Your task to perform on an android device: Search for a new foundation (skincare) product Image 0: 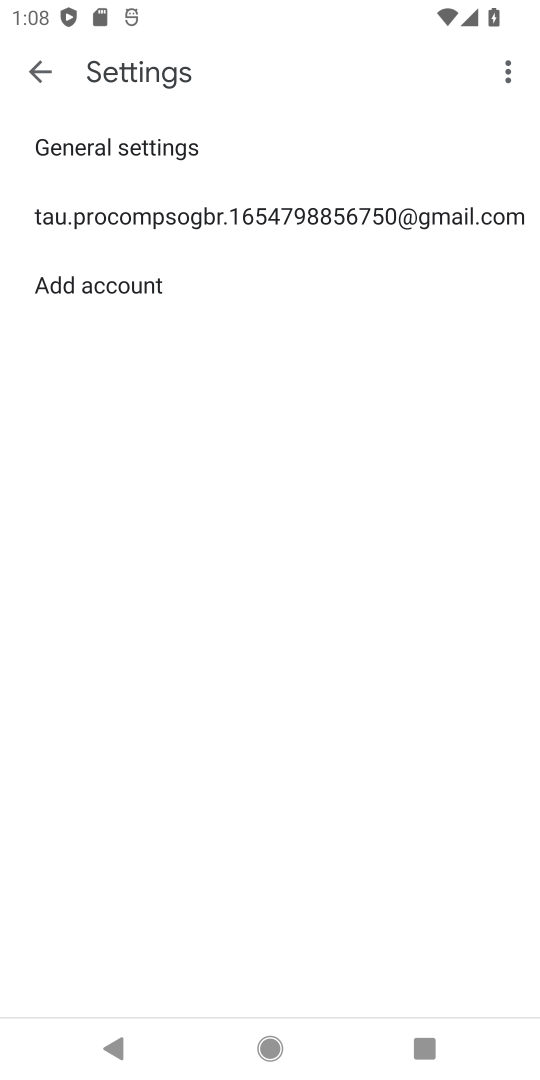
Step 0: press home button
Your task to perform on an android device: Search for a new foundation (skincare) product Image 1: 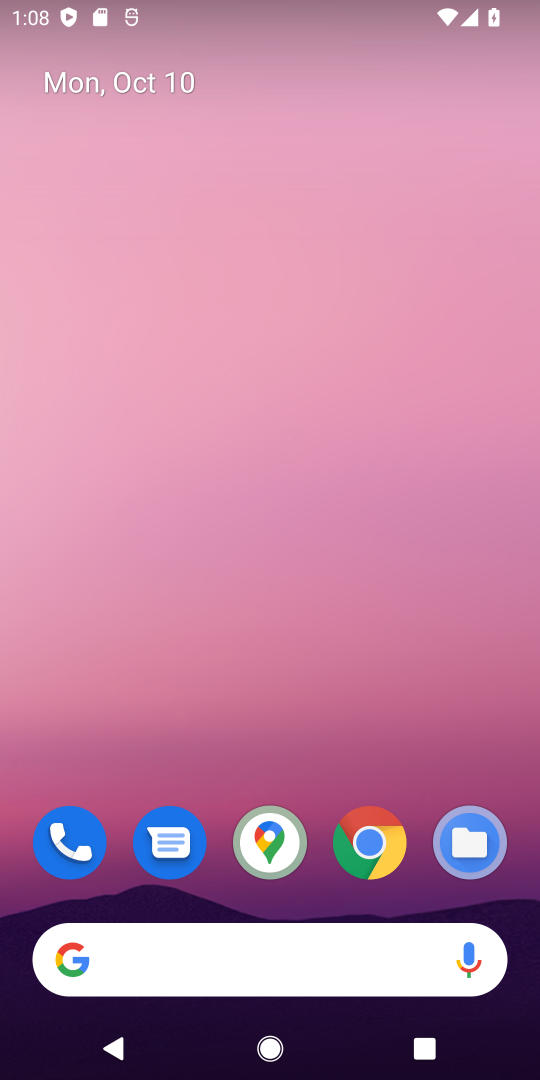
Step 1: click (366, 844)
Your task to perform on an android device: Search for a new foundation (skincare) product Image 2: 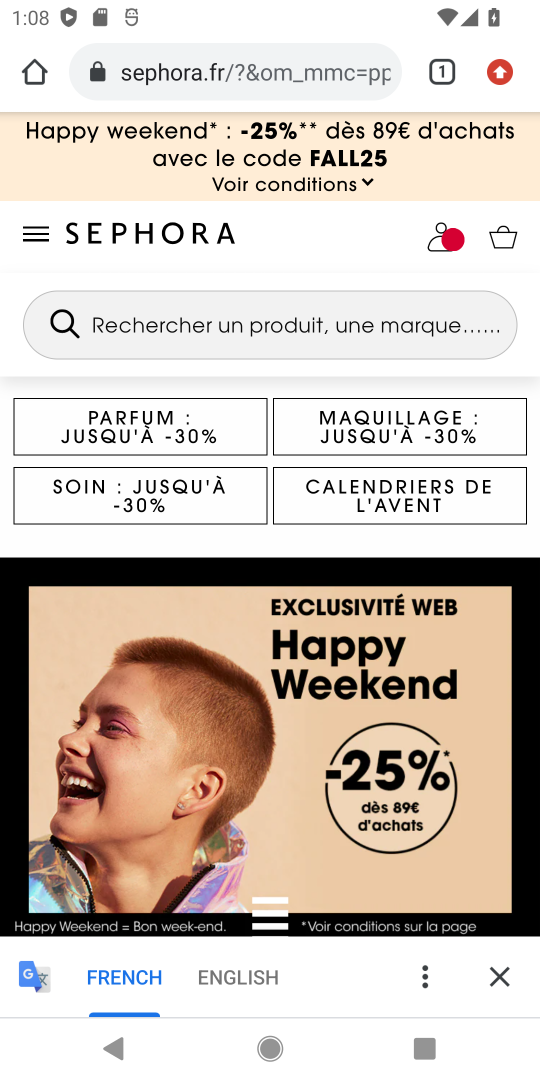
Step 2: click (183, 63)
Your task to perform on an android device: Search for a new foundation (skincare) product Image 3: 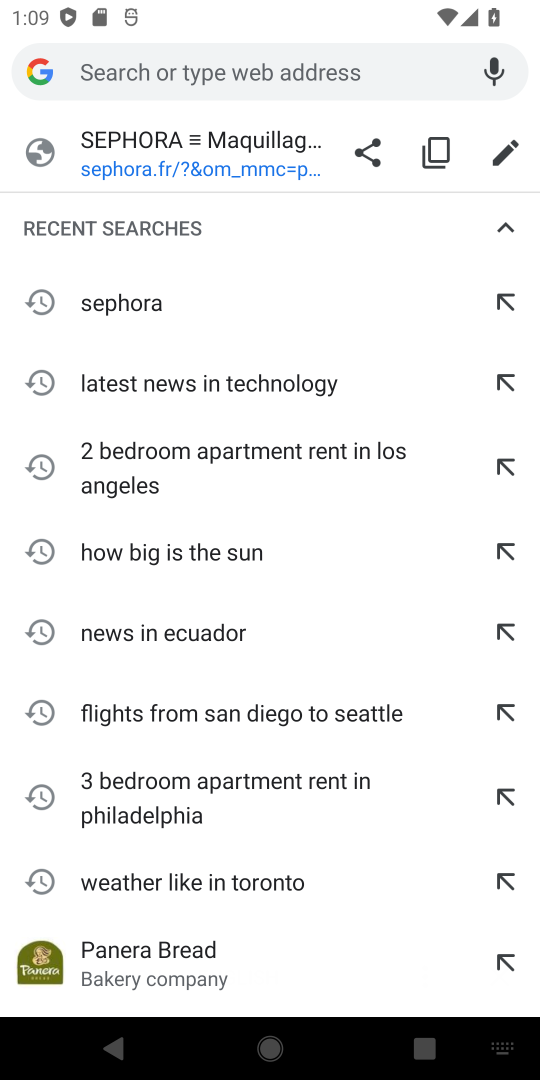
Step 3: type "new foundation skincare product"
Your task to perform on an android device: Search for a new foundation (skincare) product Image 4: 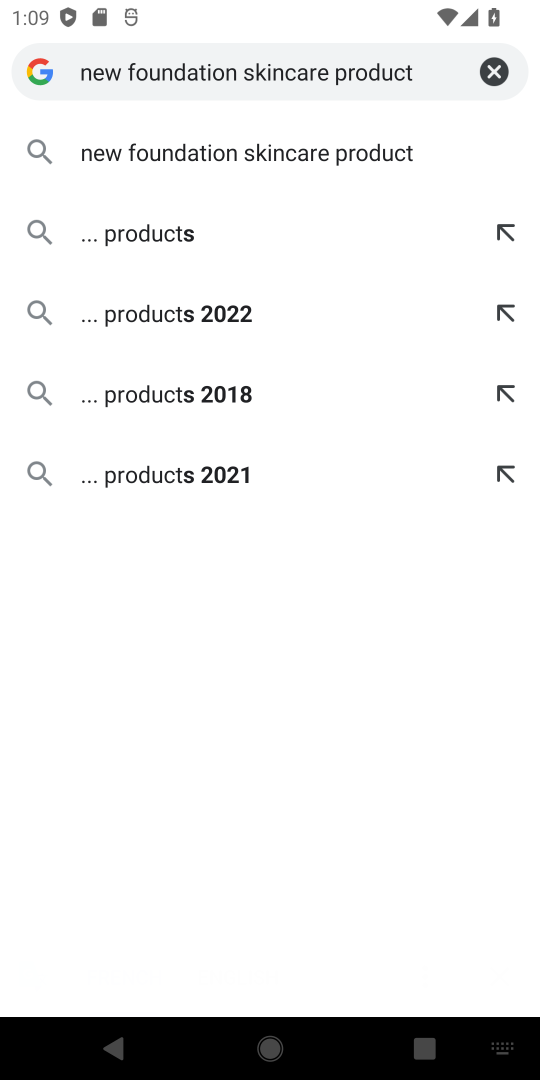
Step 4: press enter
Your task to perform on an android device: Search for a new foundation (skincare) product Image 5: 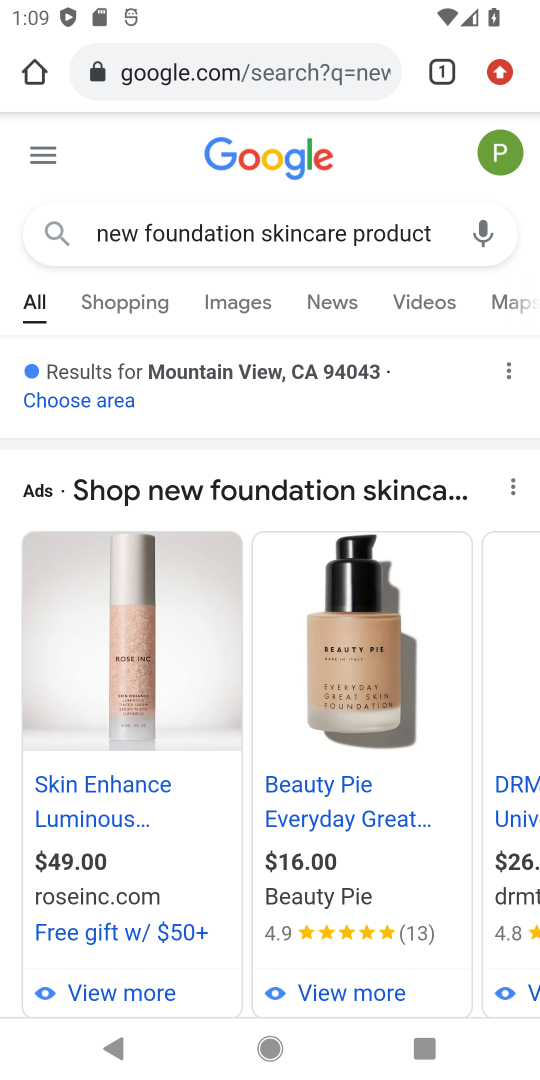
Step 5: drag from (320, 772) to (310, 335)
Your task to perform on an android device: Search for a new foundation (skincare) product Image 6: 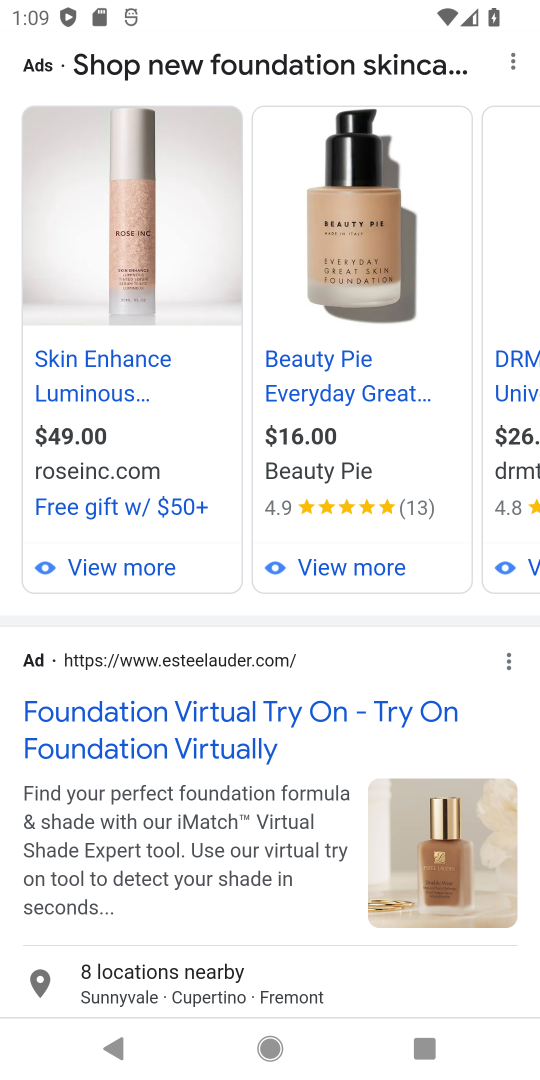
Step 6: drag from (216, 892) to (207, 500)
Your task to perform on an android device: Search for a new foundation (skincare) product Image 7: 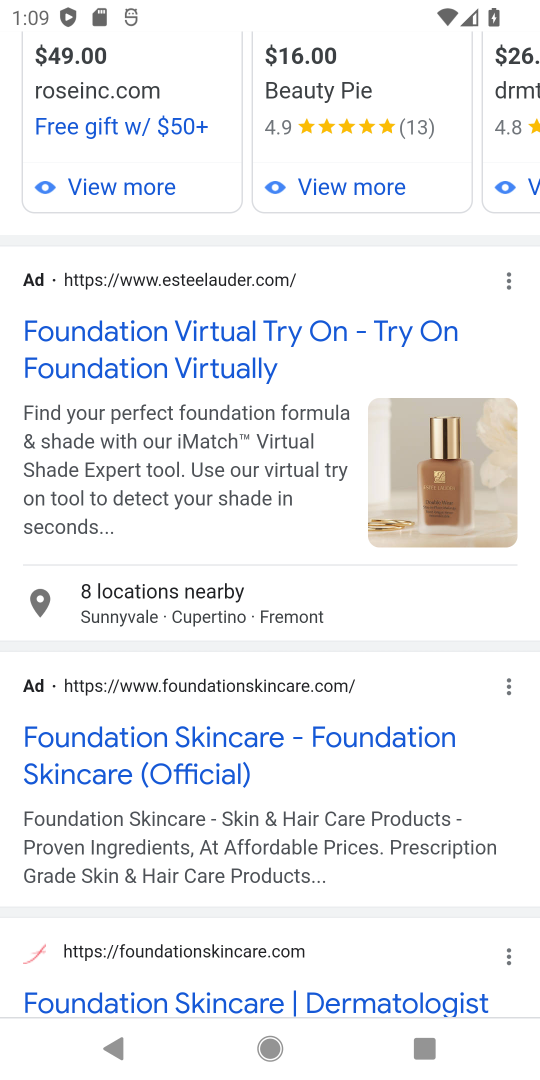
Step 7: click (196, 760)
Your task to perform on an android device: Search for a new foundation (skincare) product Image 8: 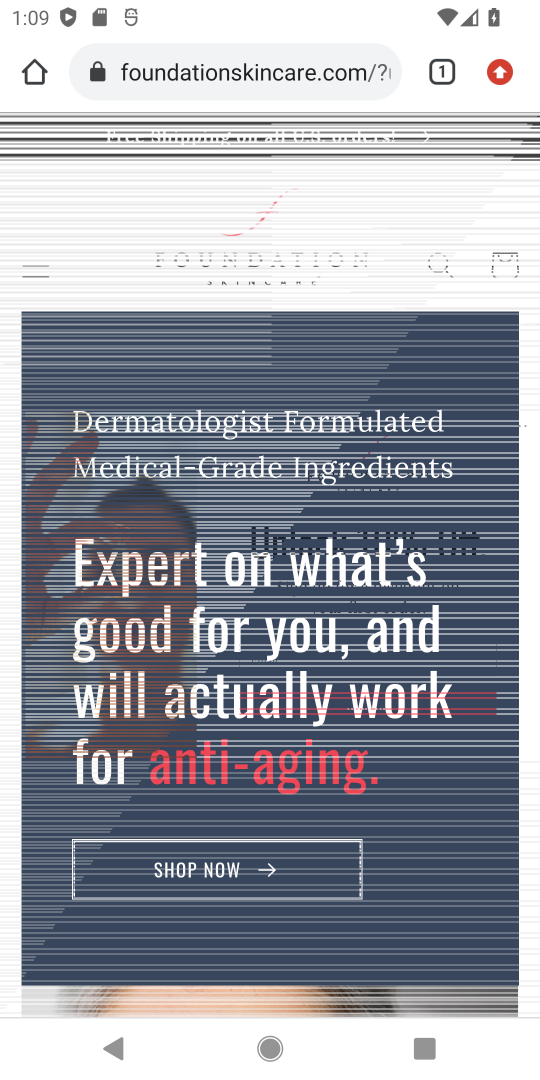
Step 8: click (519, 426)
Your task to perform on an android device: Search for a new foundation (skincare) product Image 9: 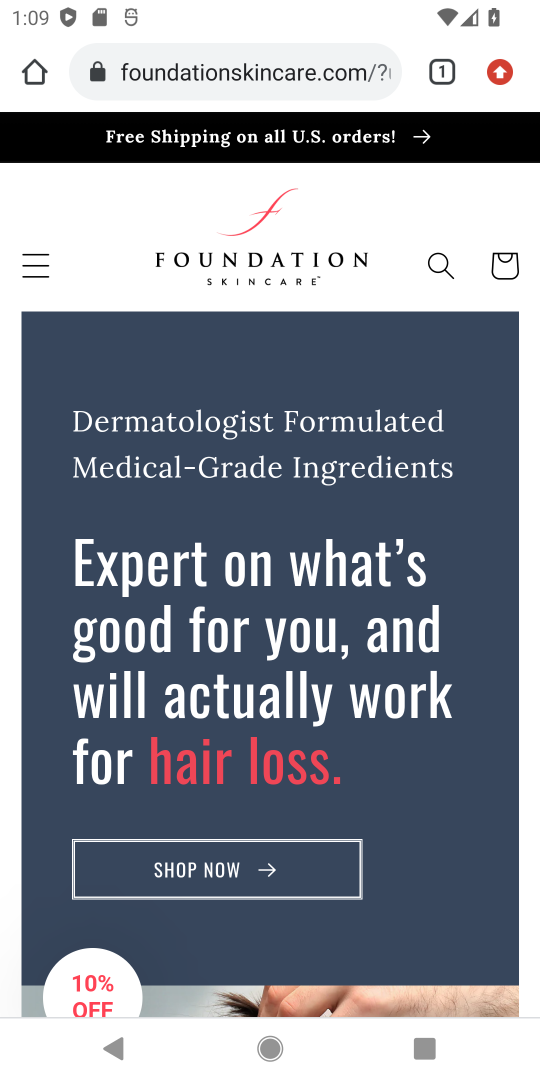
Step 9: task complete